Your task to perform on an android device: Open wifi settings Image 0: 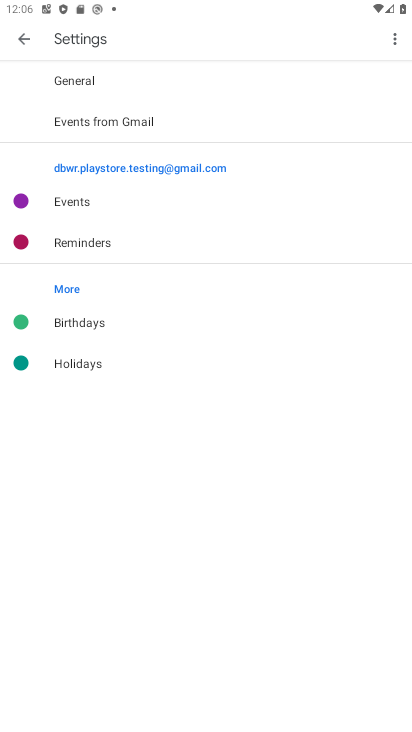
Step 0: press home button
Your task to perform on an android device: Open wifi settings Image 1: 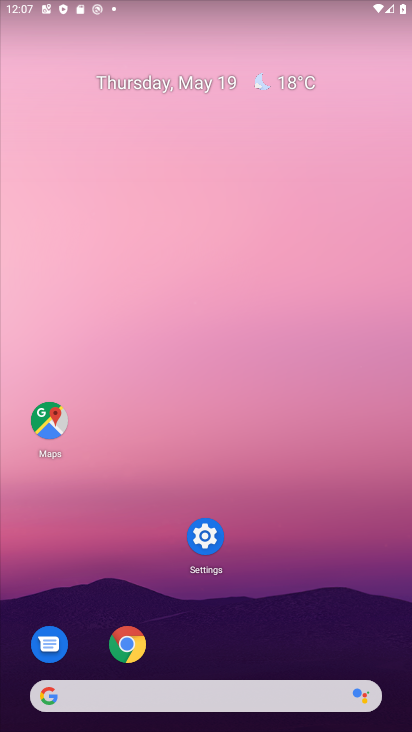
Step 1: drag from (301, 587) to (298, 0)
Your task to perform on an android device: Open wifi settings Image 2: 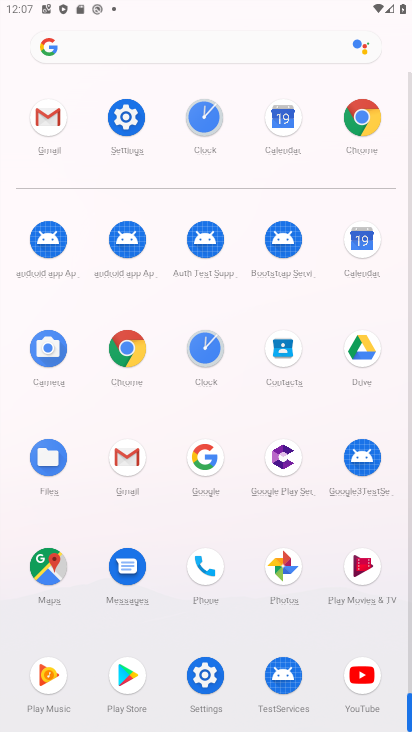
Step 2: click (128, 112)
Your task to perform on an android device: Open wifi settings Image 3: 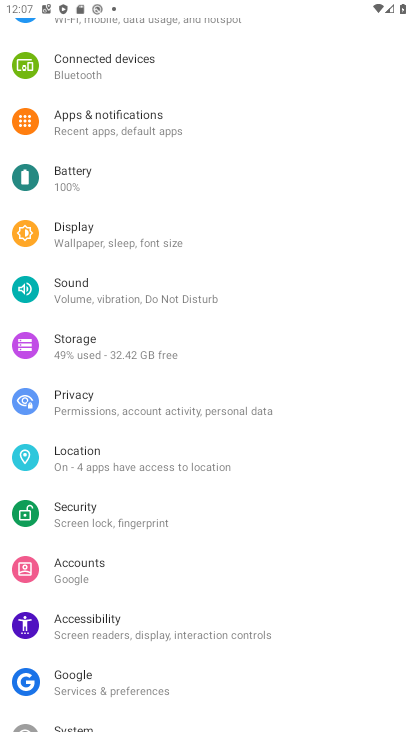
Step 3: click (119, 18)
Your task to perform on an android device: Open wifi settings Image 4: 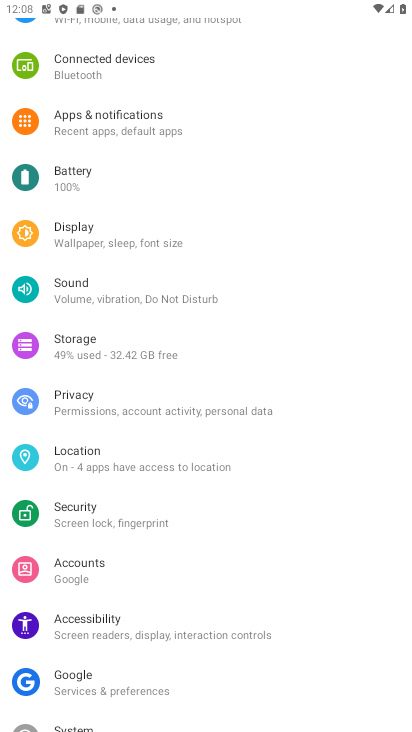
Step 4: drag from (148, 75) to (139, 372)
Your task to perform on an android device: Open wifi settings Image 5: 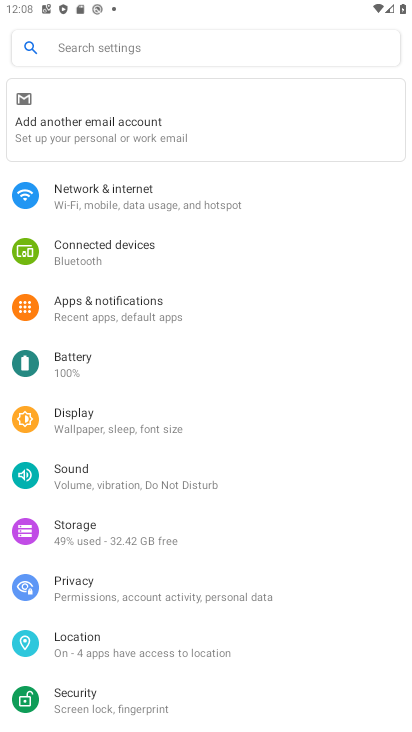
Step 5: click (95, 198)
Your task to perform on an android device: Open wifi settings Image 6: 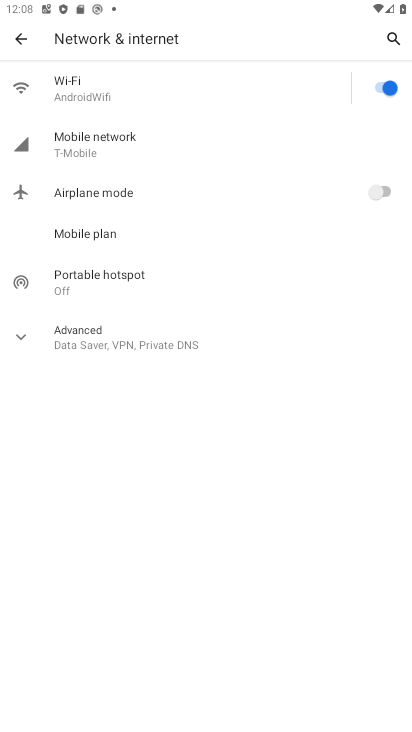
Step 6: click (150, 90)
Your task to perform on an android device: Open wifi settings Image 7: 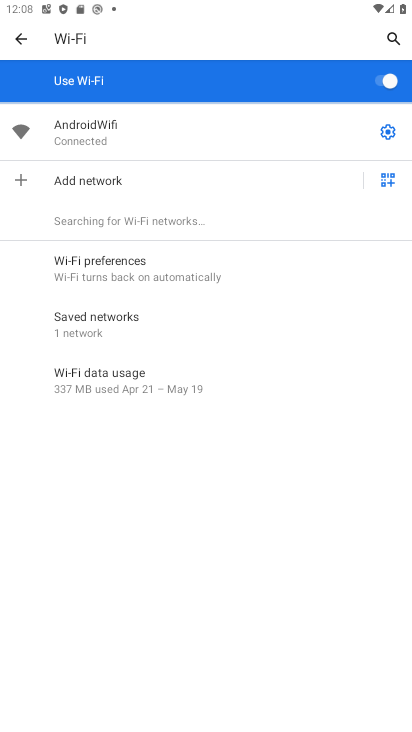
Step 7: click (379, 130)
Your task to perform on an android device: Open wifi settings Image 8: 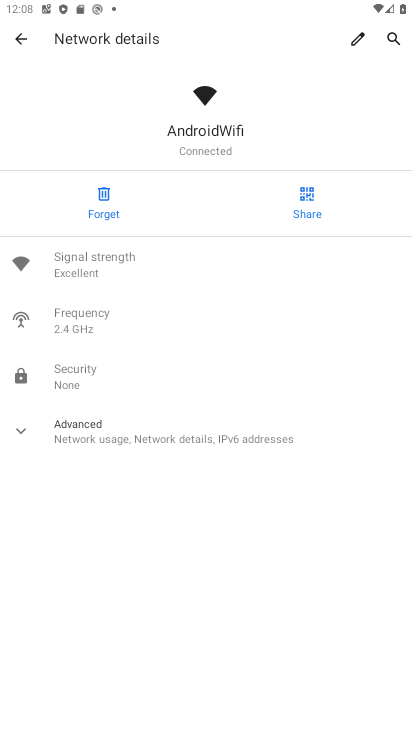
Step 8: task complete